Your task to perform on an android device: turn on sleep mode Image 0: 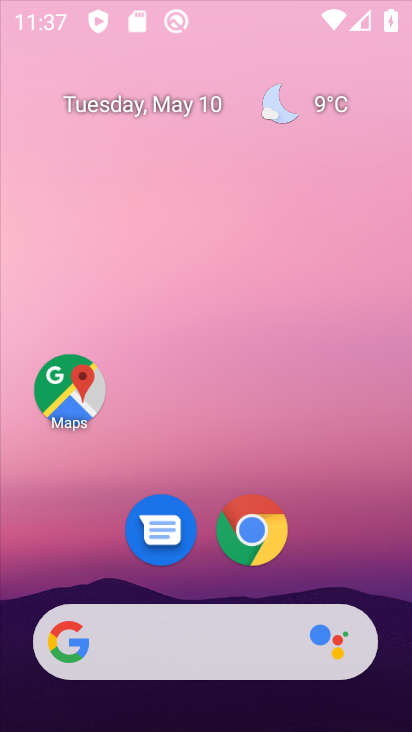
Step 0: drag from (330, 539) to (248, 77)
Your task to perform on an android device: turn on sleep mode Image 1: 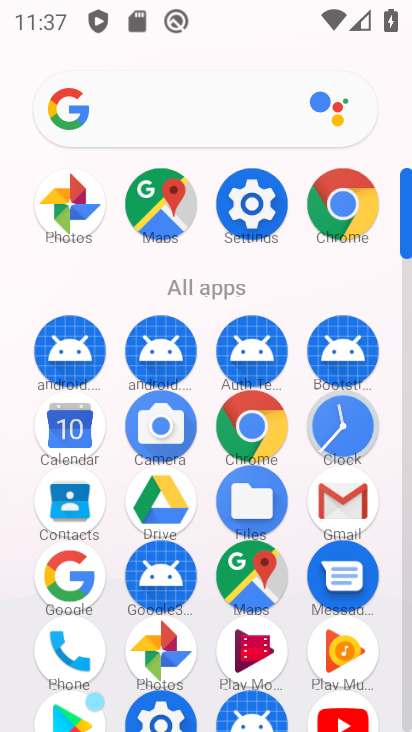
Step 1: click (263, 220)
Your task to perform on an android device: turn on sleep mode Image 2: 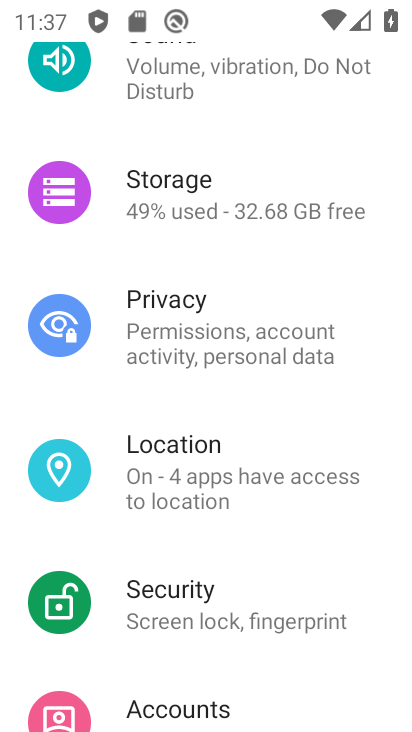
Step 2: drag from (263, 220) to (281, 727)
Your task to perform on an android device: turn on sleep mode Image 3: 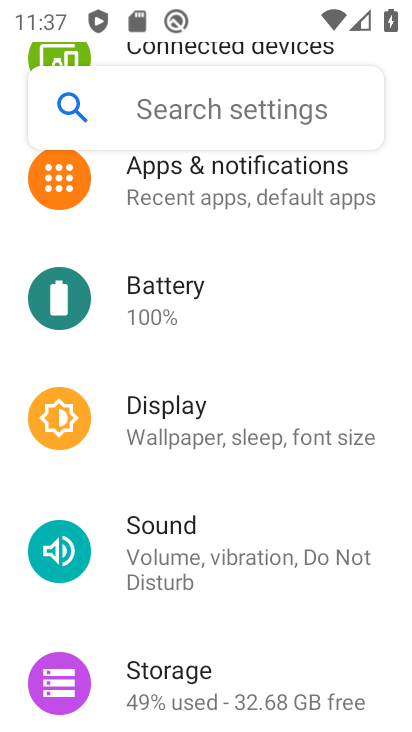
Step 3: click (147, 436)
Your task to perform on an android device: turn on sleep mode Image 4: 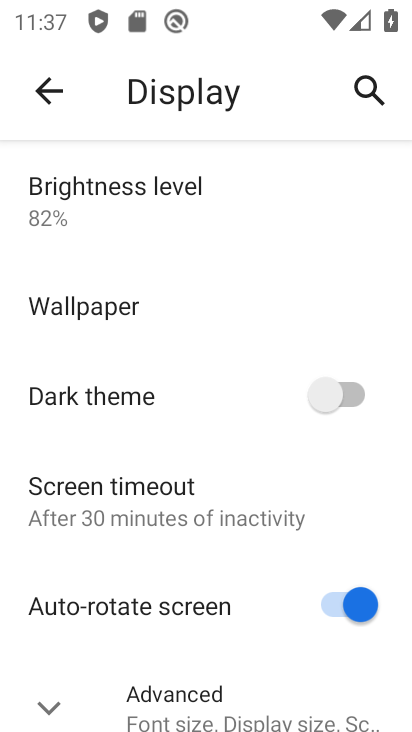
Step 4: task complete